Your task to perform on an android device: Go to calendar. Show me events next week Image 0: 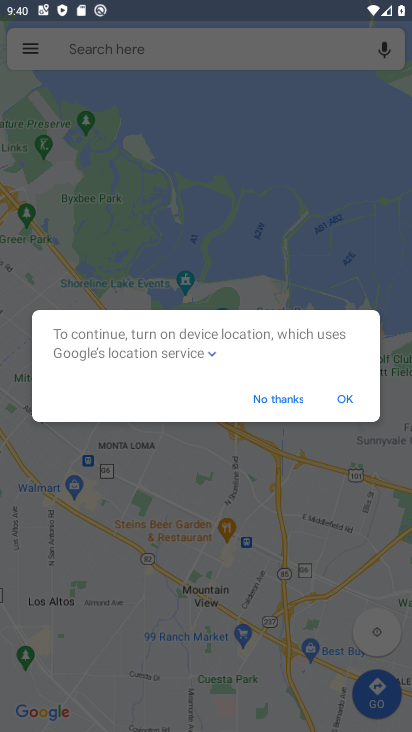
Step 0: press home button
Your task to perform on an android device: Go to calendar. Show me events next week Image 1: 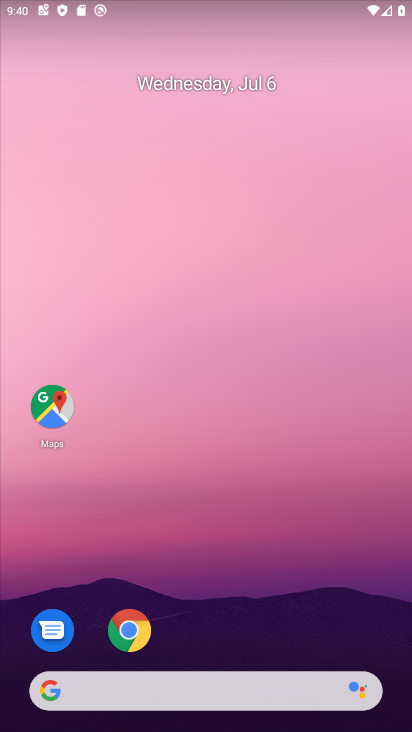
Step 1: drag from (358, 638) to (333, 184)
Your task to perform on an android device: Go to calendar. Show me events next week Image 2: 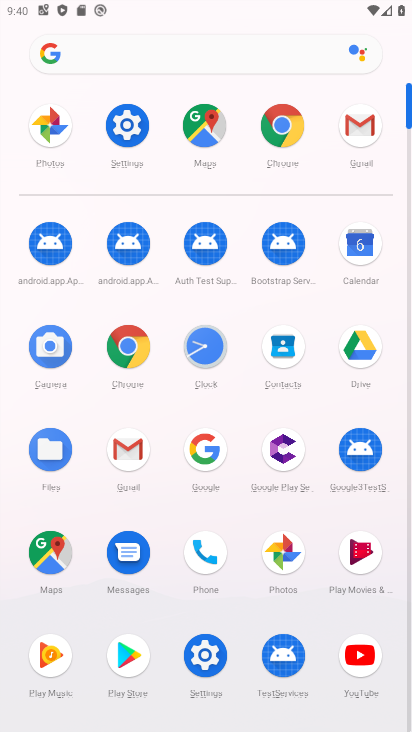
Step 2: click (360, 245)
Your task to perform on an android device: Go to calendar. Show me events next week Image 3: 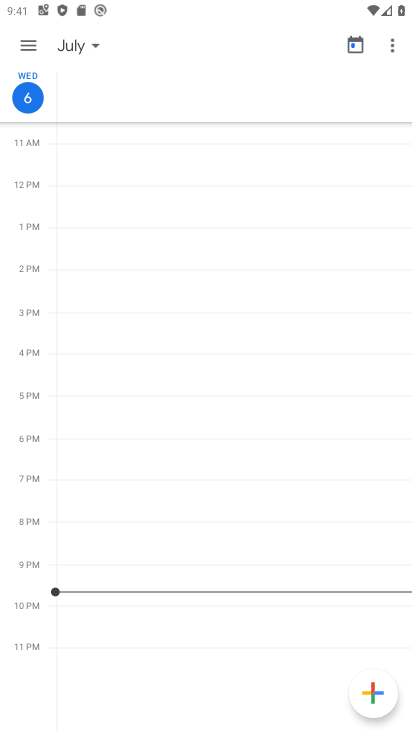
Step 3: click (27, 46)
Your task to perform on an android device: Go to calendar. Show me events next week Image 4: 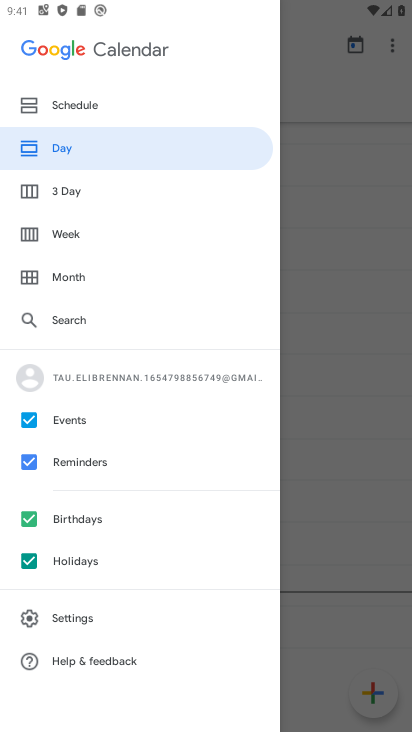
Step 4: click (69, 237)
Your task to perform on an android device: Go to calendar. Show me events next week Image 5: 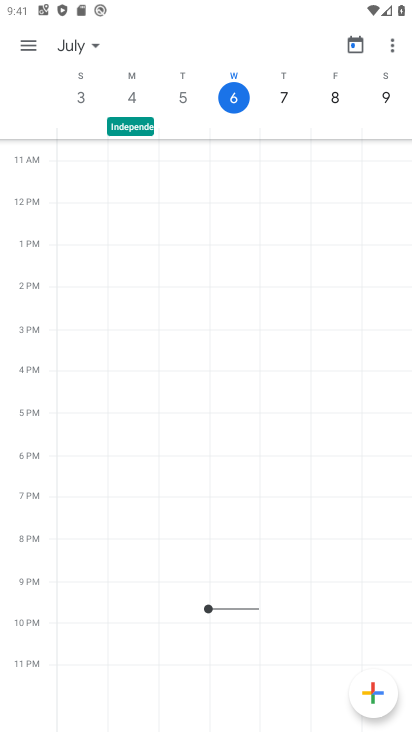
Step 5: click (99, 47)
Your task to perform on an android device: Go to calendar. Show me events next week Image 6: 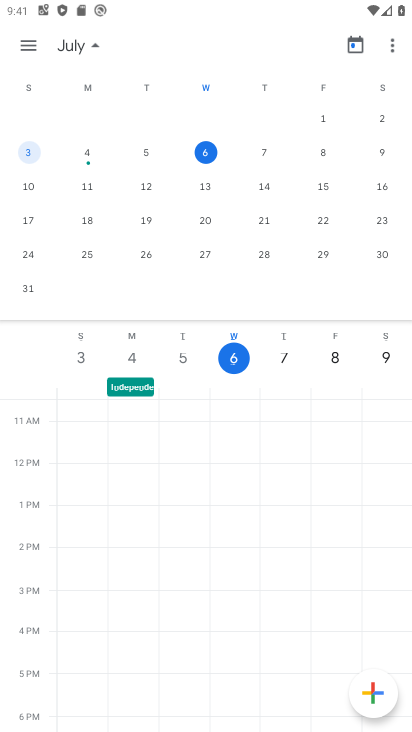
Step 6: click (26, 185)
Your task to perform on an android device: Go to calendar. Show me events next week Image 7: 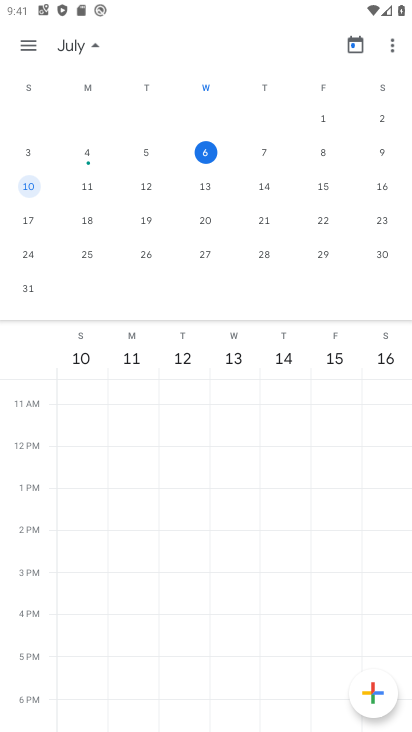
Step 7: task complete